Your task to perform on an android device: toggle wifi Image 0: 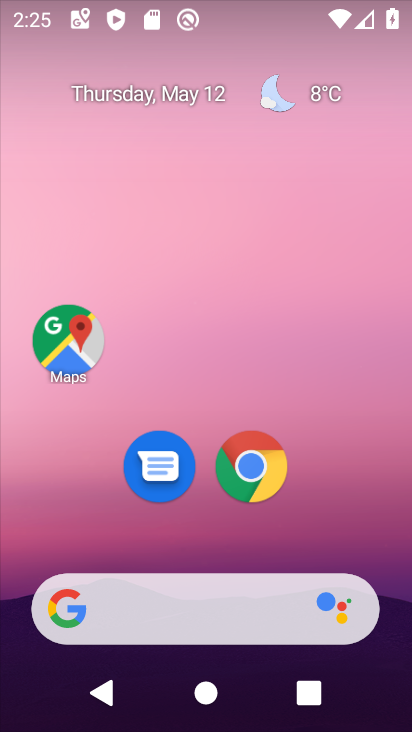
Step 0: drag from (240, 372) to (190, 122)
Your task to perform on an android device: toggle wifi Image 1: 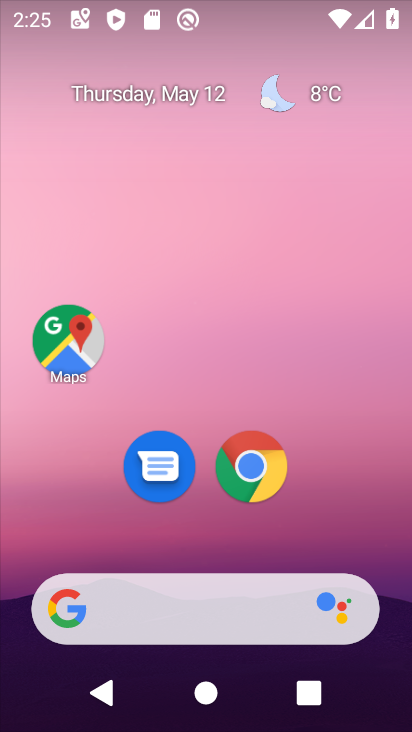
Step 1: drag from (298, 498) to (252, 166)
Your task to perform on an android device: toggle wifi Image 2: 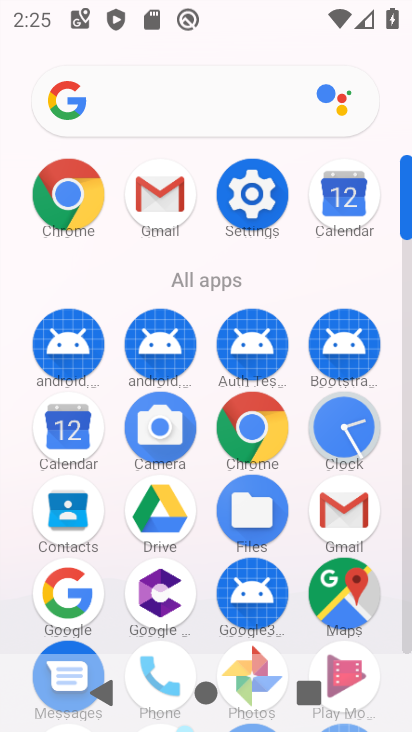
Step 2: click (254, 200)
Your task to perform on an android device: toggle wifi Image 3: 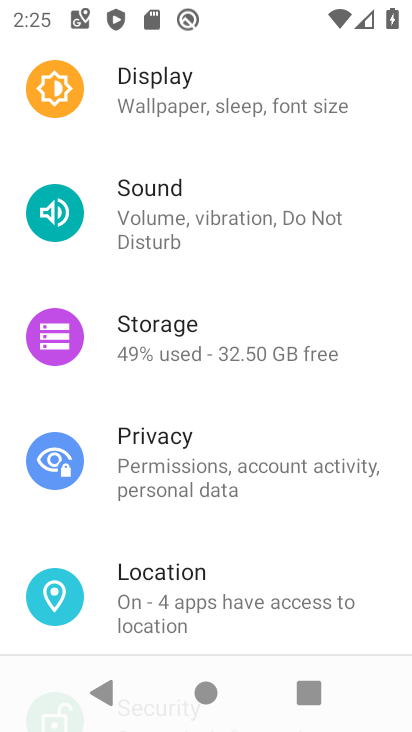
Step 3: drag from (198, 148) to (176, 509)
Your task to perform on an android device: toggle wifi Image 4: 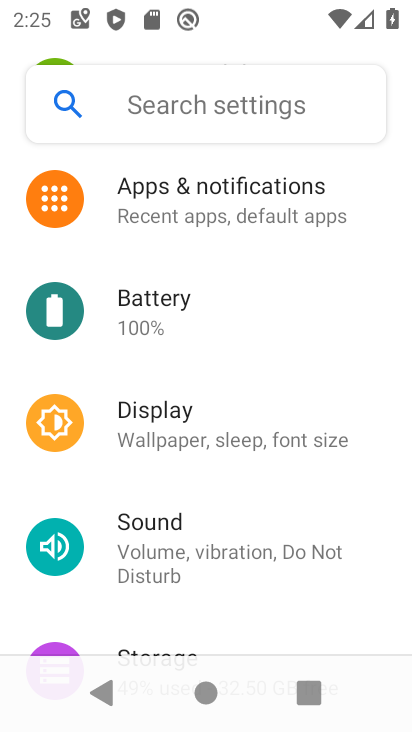
Step 4: drag from (164, 199) to (120, 509)
Your task to perform on an android device: toggle wifi Image 5: 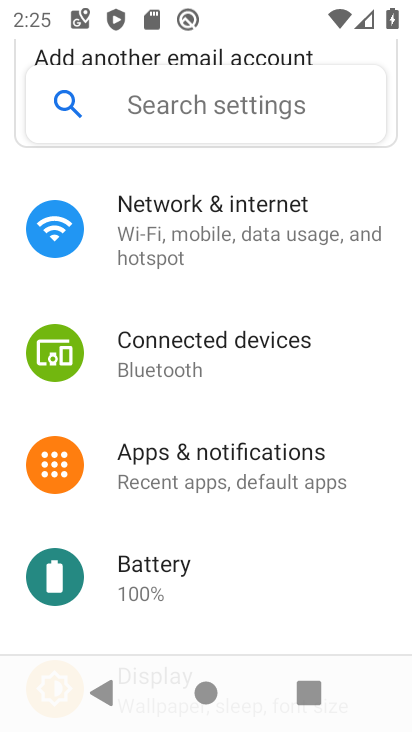
Step 5: click (134, 224)
Your task to perform on an android device: toggle wifi Image 6: 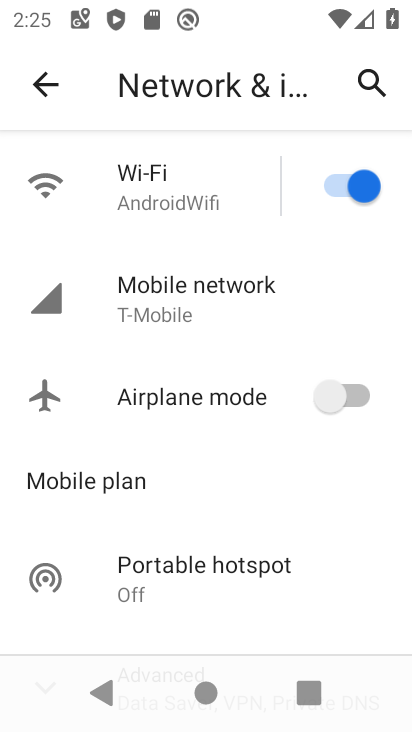
Step 6: click (349, 185)
Your task to perform on an android device: toggle wifi Image 7: 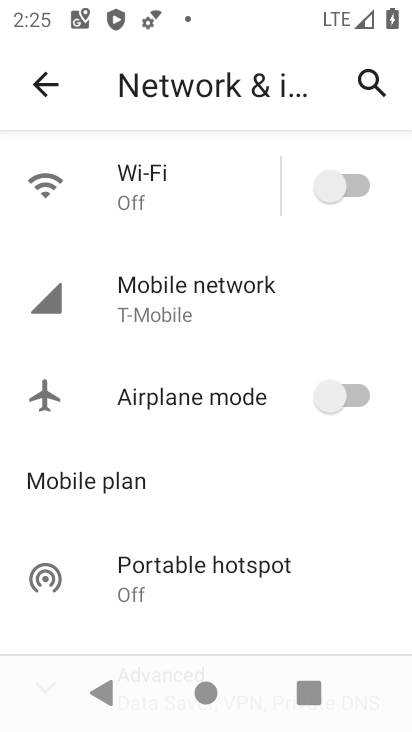
Step 7: task complete